Your task to perform on an android device: Open Android settings Image 0: 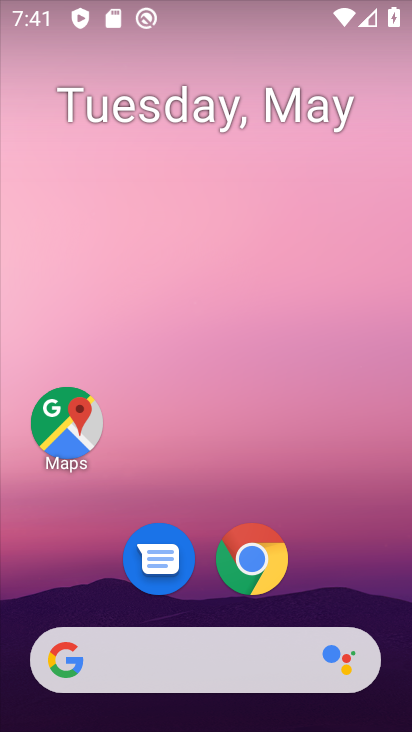
Step 0: drag from (384, 616) to (364, 256)
Your task to perform on an android device: Open Android settings Image 1: 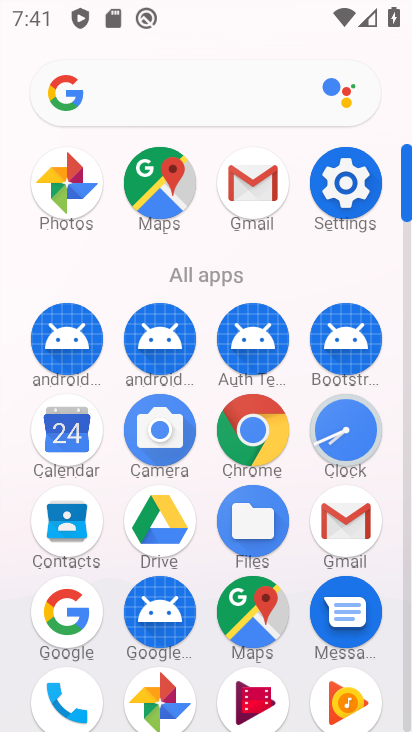
Step 1: click (354, 218)
Your task to perform on an android device: Open Android settings Image 2: 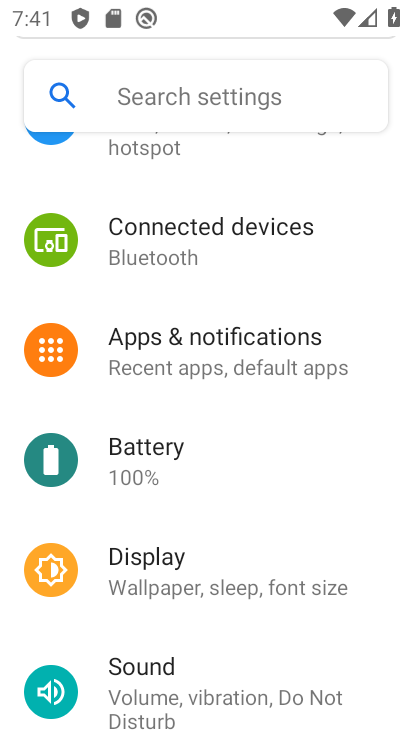
Step 2: drag from (389, 490) to (381, 349)
Your task to perform on an android device: Open Android settings Image 3: 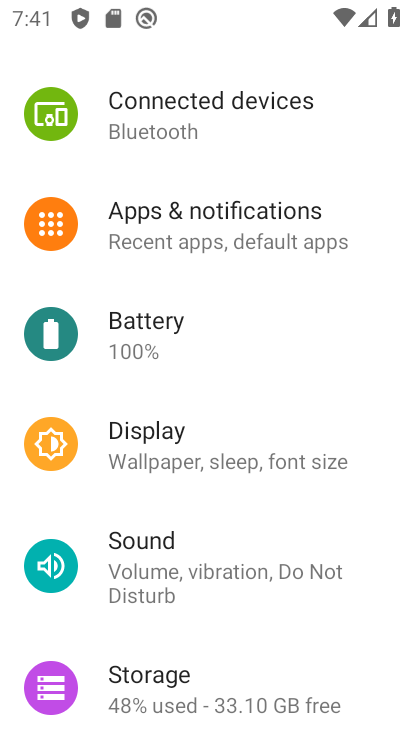
Step 3: drag from (370, 528) to (367, 402)
Your task to perform on an android device: Open Android settings Image 4: 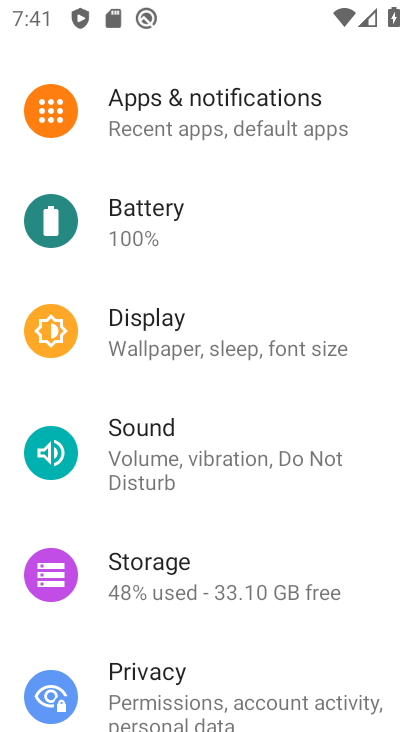
Step 4: drag from (358, 545) to (354, 413)
Your task to perform on an android device: Open Android settings Image 5: 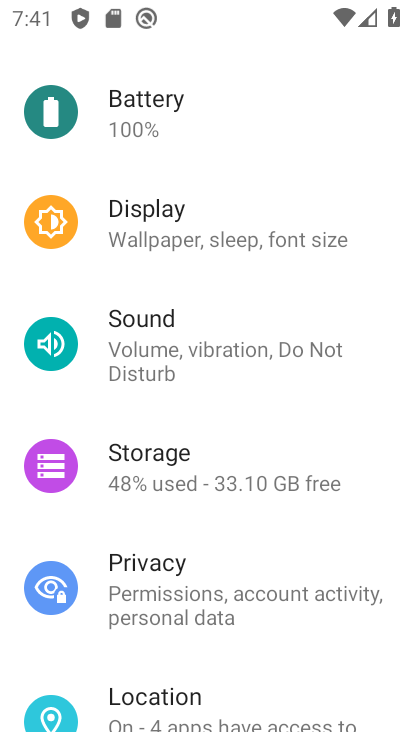
Step 5: drag from (372, 606) to (390, 433)
Your task to perform on an android device: Open Android settings Image 6: 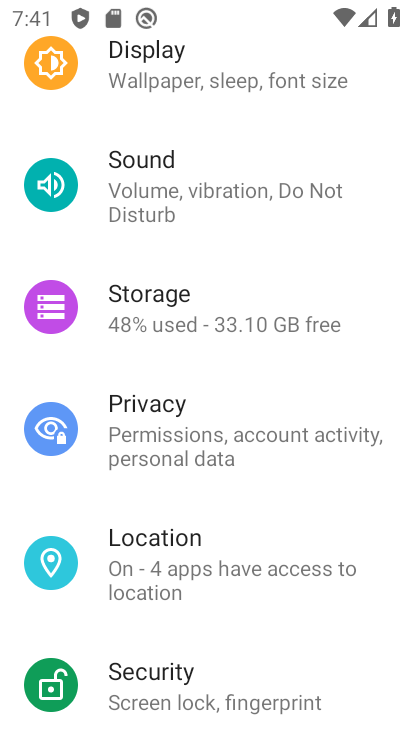
Step 6: drag from (371, 607) to (381, 439)
Your task to perform on an android device: Open Android settings Image 7: 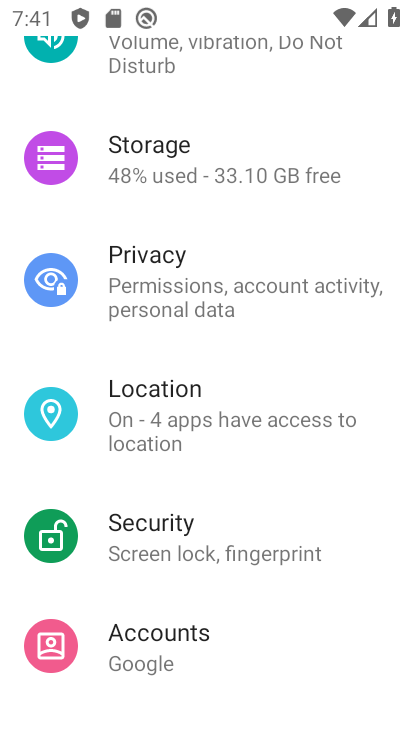
Step 7: drag from (362, 624) to (353, 490)
Your task to perform on an android device: Open Android settings Image 8: 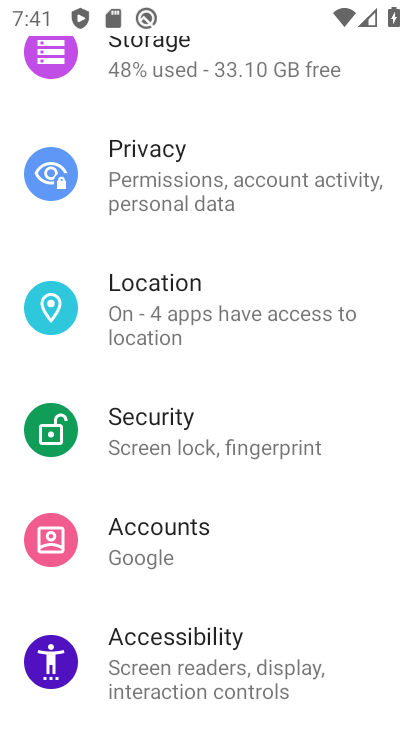
Step 8: drag from (358, 641) to (368, 476)
Your task to perform on an android device: Open Android settings Image 9: 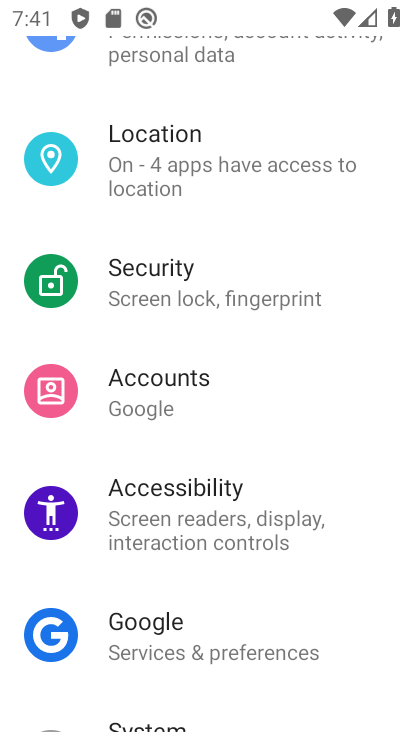
Step 9: drag from (358, 635) to (361, 488)
Your task to perform on an android device: Open Android settings Image 10: 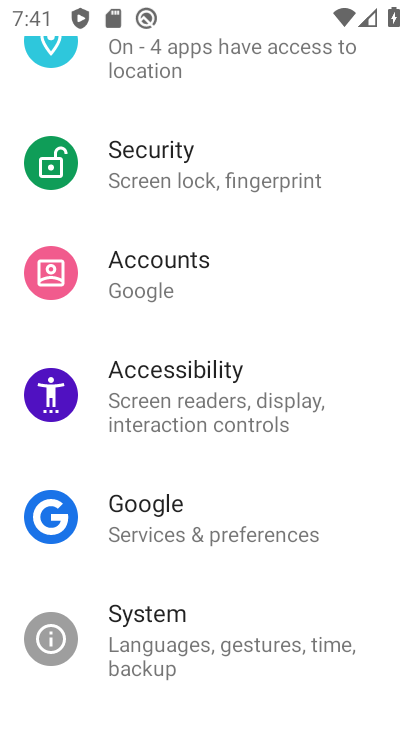
Step 10: drag from (360, 665) to (363, 502)
Your task to perform on an android device: Open Android settings Image 11: 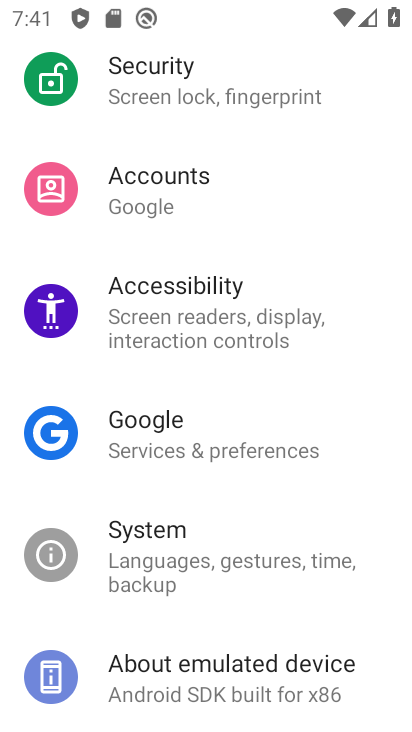
Step 11: click (357, 580)
Your task to perform on an android device: Open Android settings Image 12: 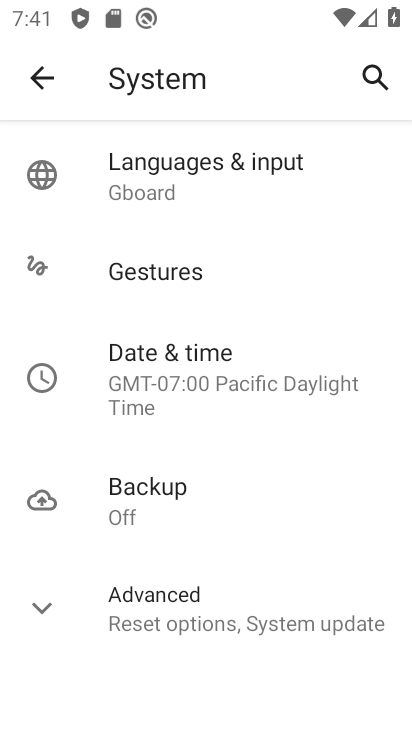
Step 12: click (218, 620)
Your task to perform on an android device: Open Android settings Image 13: 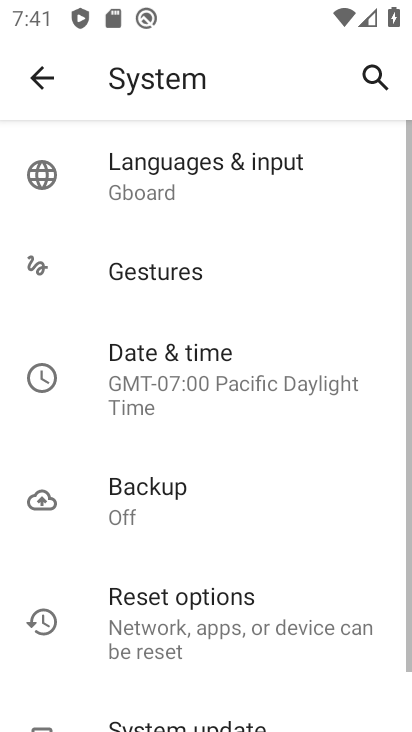
Step 13: task complete